Your task to perform on an android device: What's the weather? Image 0: 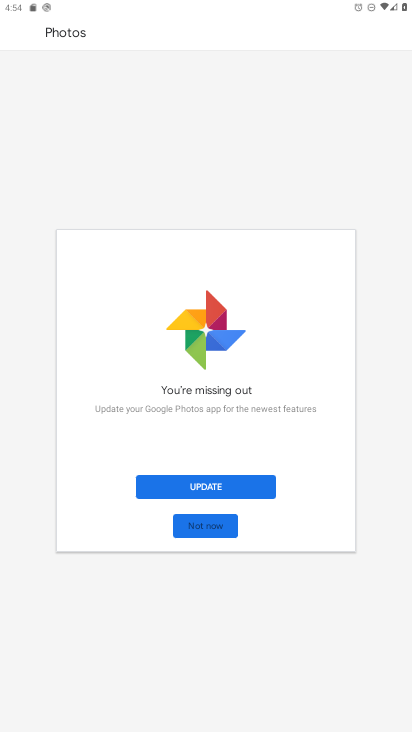
Step 0: press home button
Your task to perform on an android device: What's the weather? Image 1: 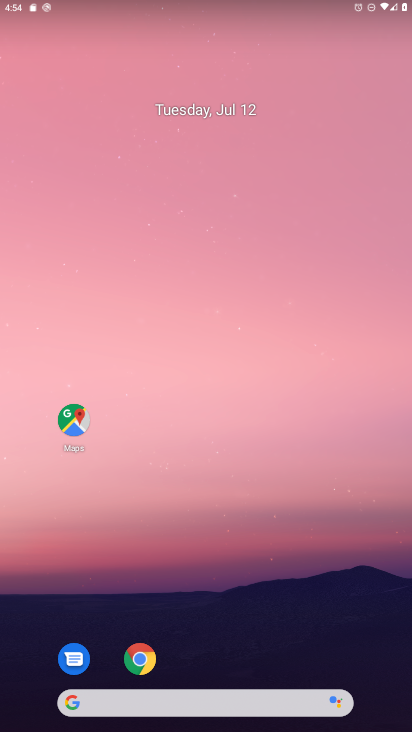
Step 1: drag from (198, 634) to (250, 304)
Your task to perform on an android device: What's the weather? Image 2: 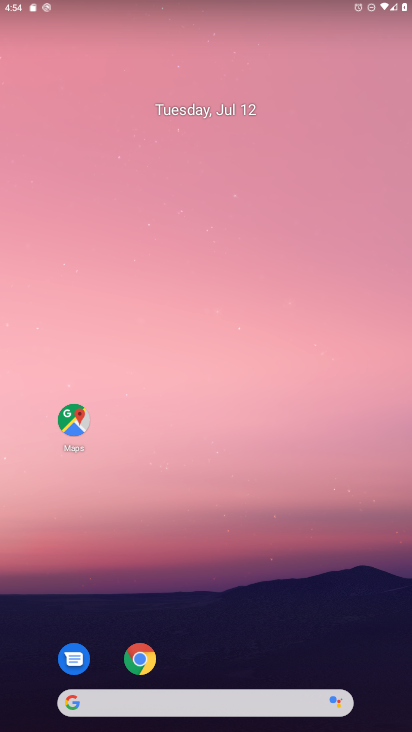
Step 2: click (140, 658)
Your task to perform on an android device: What's the weather? Image 3: 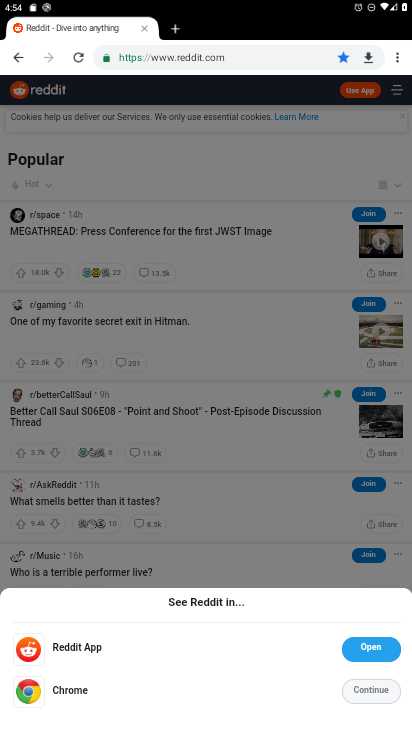
Step 3: click (369, 689)
Your task to perform on an android device: What's the weather? Image 4: 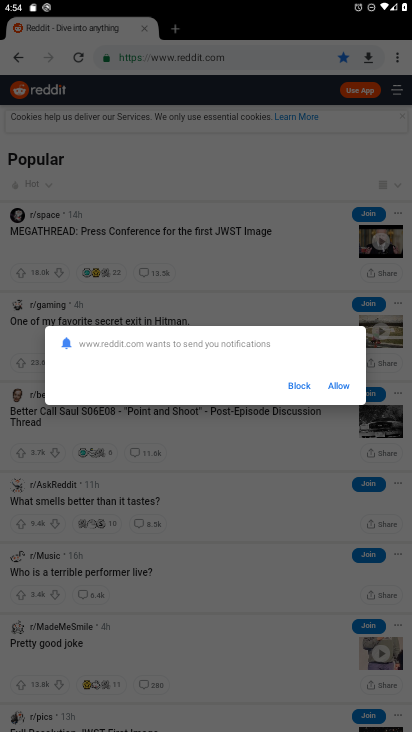
Step 4: click (292, 386)
Your task to perform on an android device: What's the weather? Image 5: 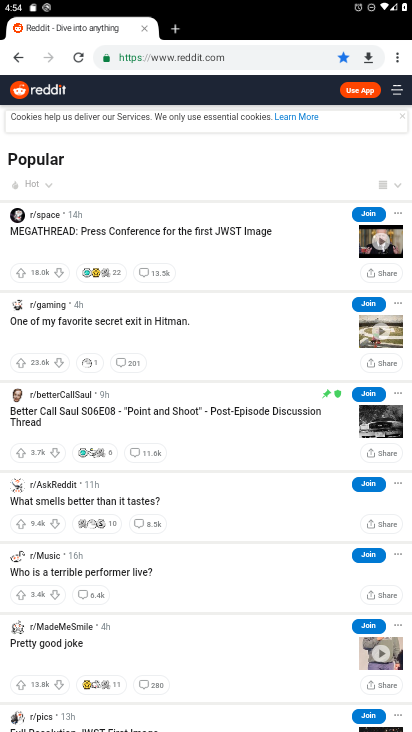
Step 5: click (137, 51)
Your task to perform on an android device: What's the weather? Image 6: 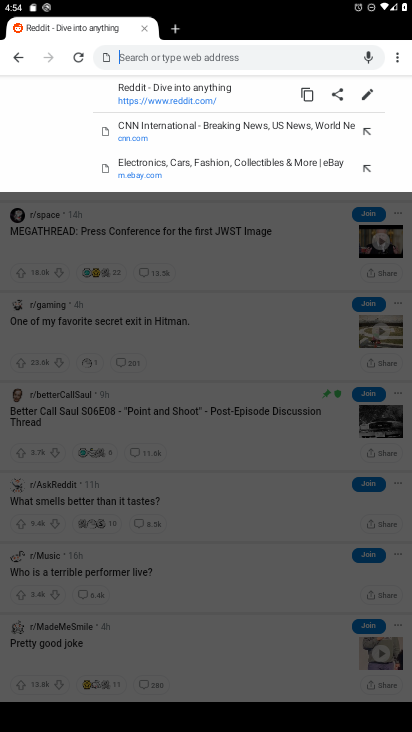
Step 6: press home button
Your task to perform on an android device: What's the weather? Image 7: 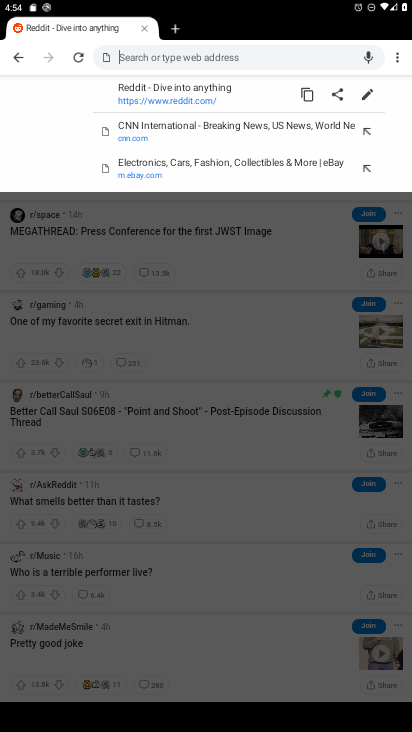
Step 7: type "www"
Your task to perform on an android device: What's the weather? Image 8: 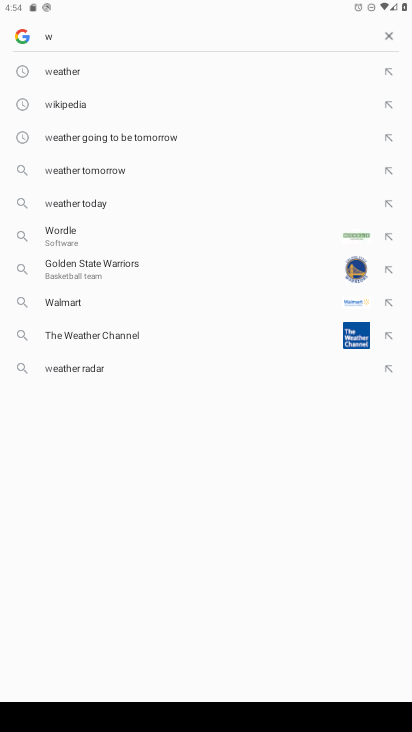
Step 8: press home button
Your task to perform on an android device: What's the weather? Image 9: 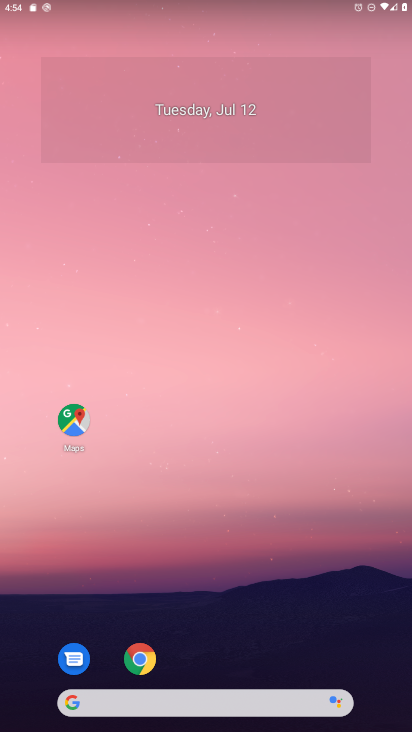
Step 9: drag from (211, 278) to (264, 6)
Your task to perform on an android device: What's the weather? Image 10: 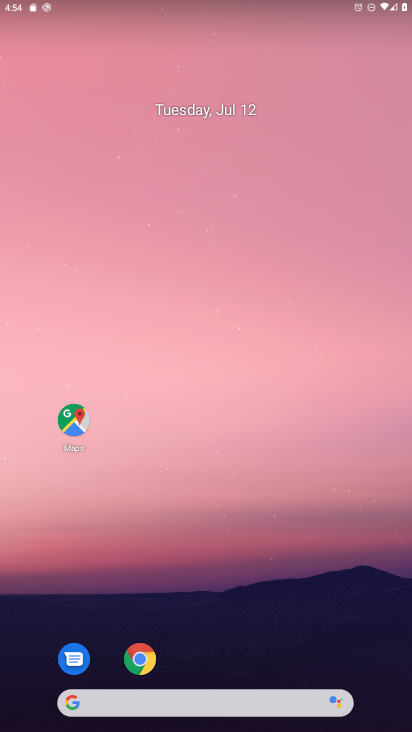
Step 10: drag from (175, 138) to (158, 80)
Your task to perform on an android device: What's the weather? Image 11: 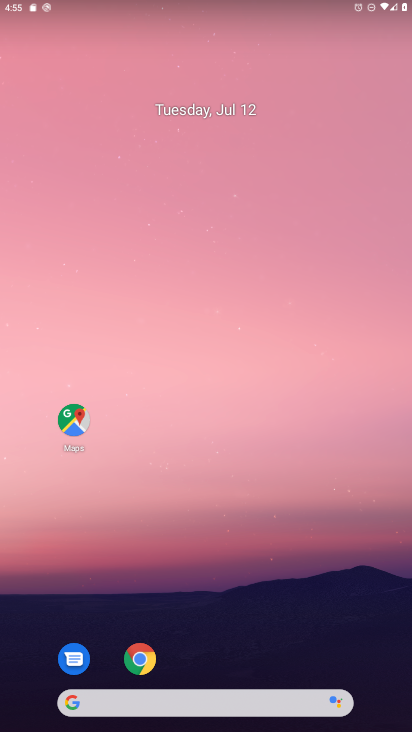
Step 11: click (228, 75)
Your task to perform on an android device: What's the weather? Image 12: 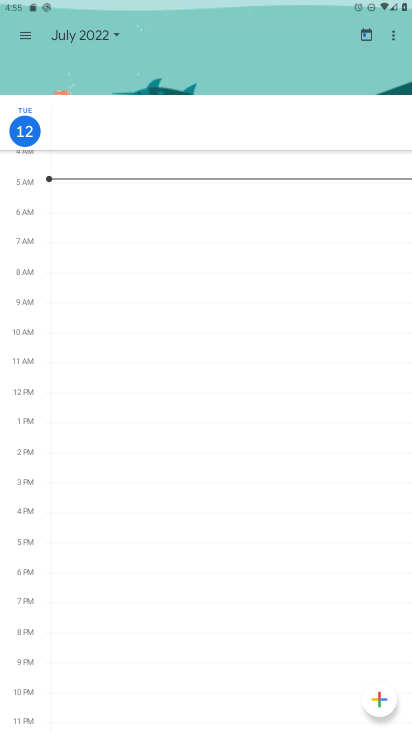
Step 12: press home button
Your task to perform on an android device: What's the weather? Image 13: 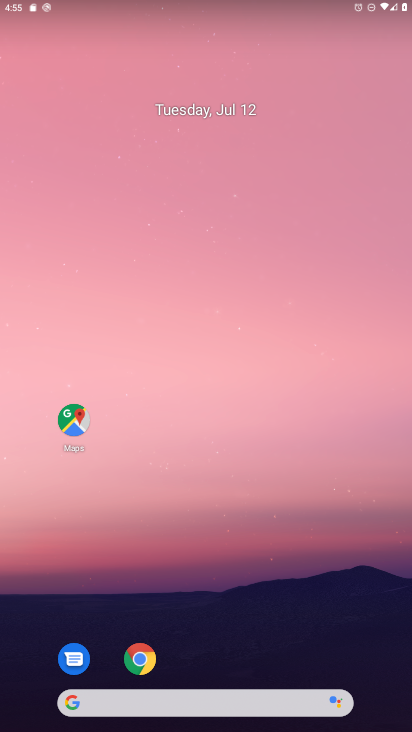
Step 13: drag from (236, 539) to (231, 109)
Your task to perform on an android device: What's the weather? Image 14: 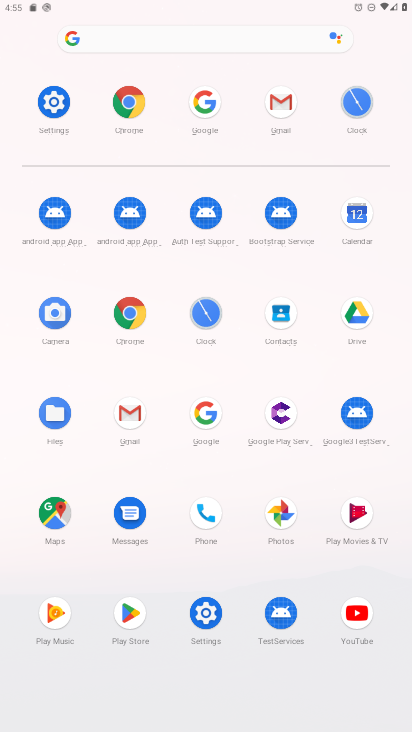
Step 14: click (201, 434)
Your task to perform on an android device: What's the weather? Image 15: 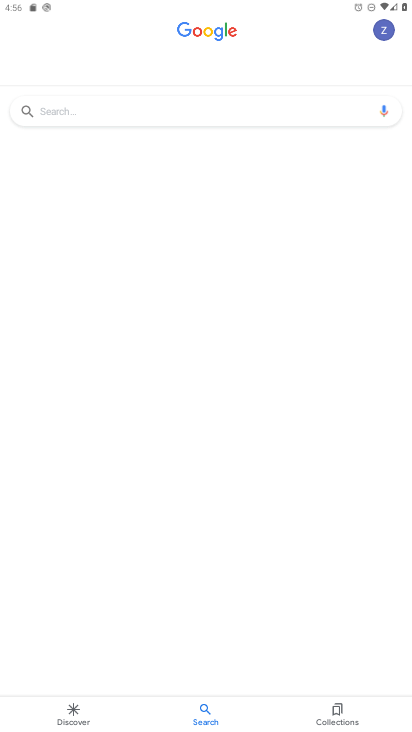
Step 15: click (224, 113)
Your task to perform on an android device: What's the weather? Image 16: 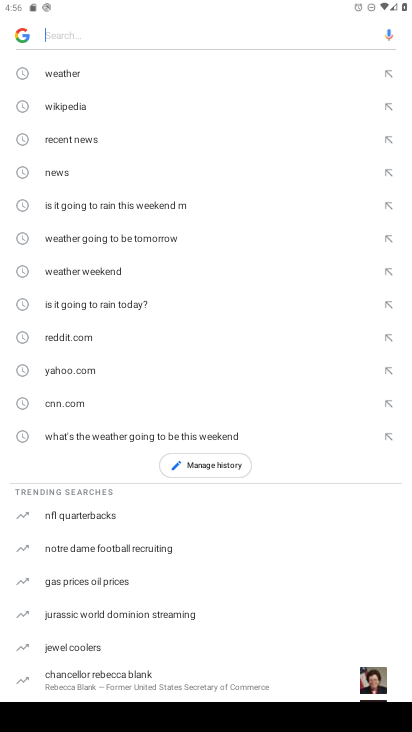
Step 16: click (73, 76)
Your task to perform on an android device: What's the weather? Image 17: 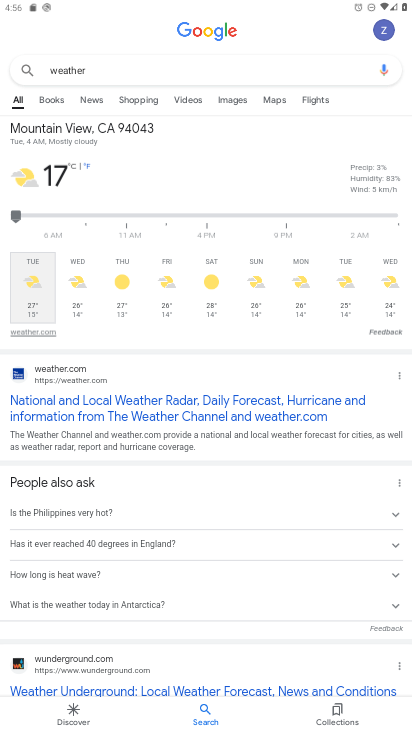
Step 17: task complete